Your task to perform on an android device: turn off priority inbox in the gmail app Image 0: 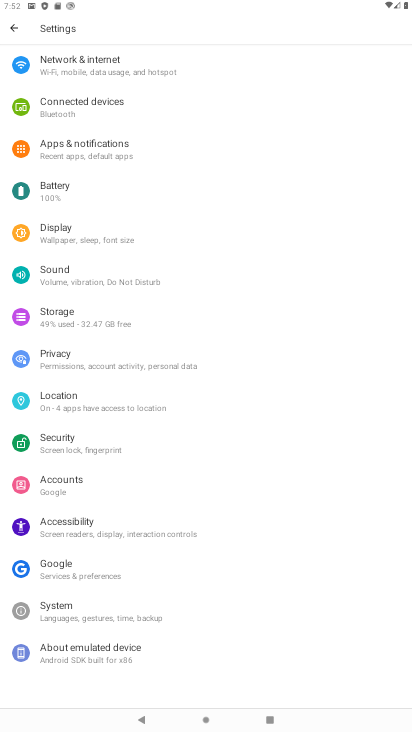
Step 0: press home button
Your task to perform on an android device: turn off priority inbox in the gmail app Image 1: 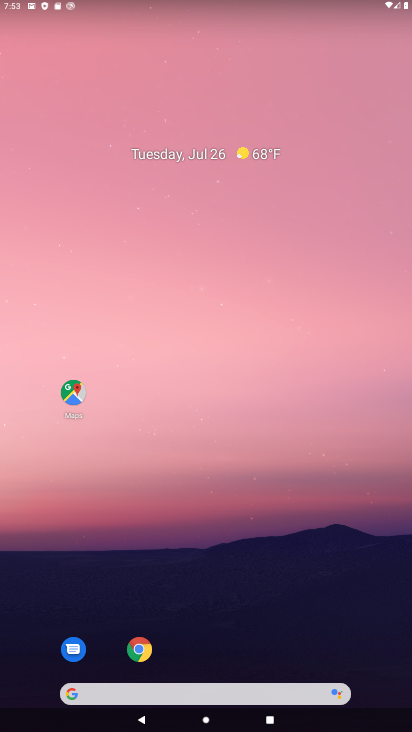
Step 1: drag from (169, 722) to (334, 27)
Your task to perform on an android device: turn off priority inbox in the gmail app Image 2: 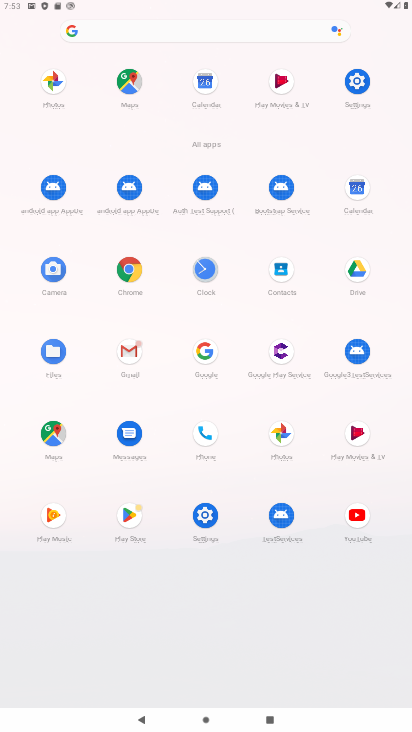
Step 2: click (144, 358)
Your task to perform on an android device: turn off priority inbox in the gmail app Image 3: 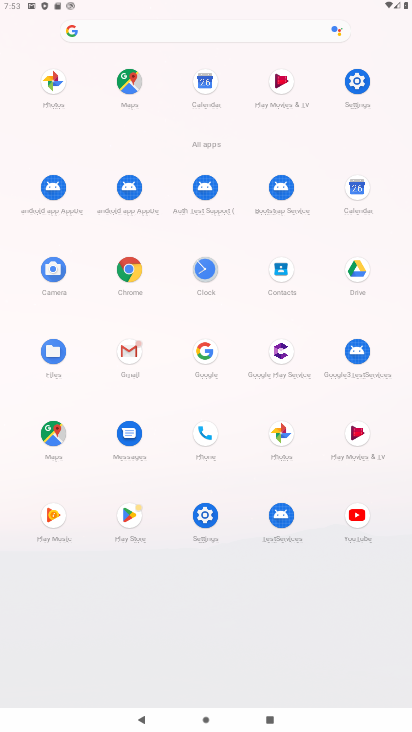
Step 3: click (144, 358)
Your task to perform on an android device: turn off priority inbox in the gmail app Image 4: 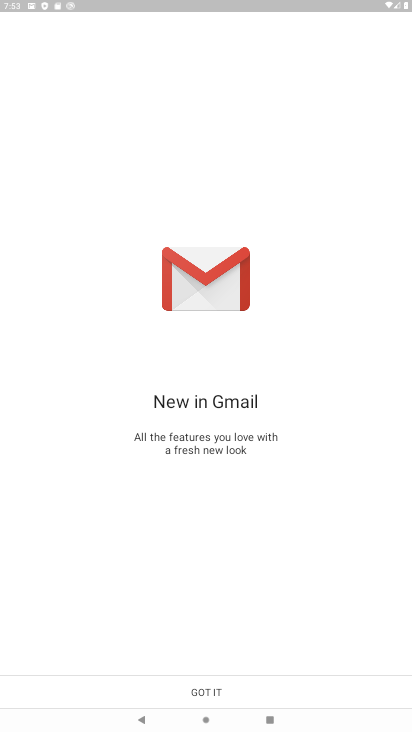
Step 4: click (166, 699)
Your task to perform on an android device: turn off priority inbox in the gmail app Image 5: 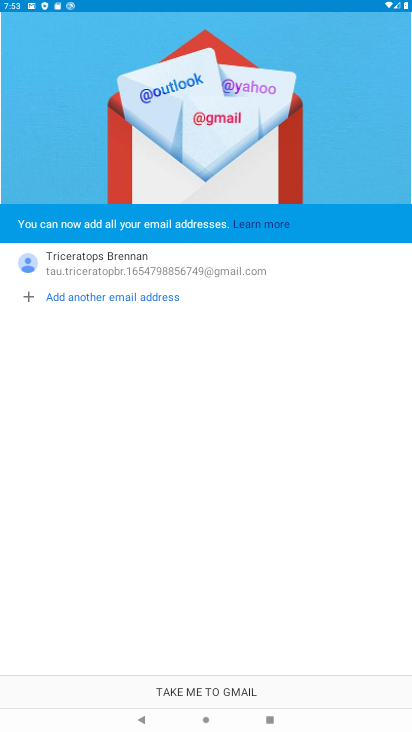
Step 5: click (244, 689)
Your task to perform on an android device: turn off priority inbox in the gmail app Image 6: 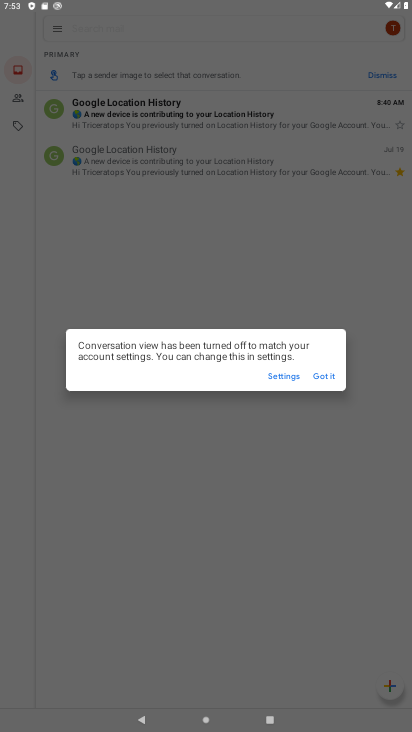
Step 6: click (337, 374)
Your task to perform on an android device: turn off priority inbox in the gmail app Image 7: 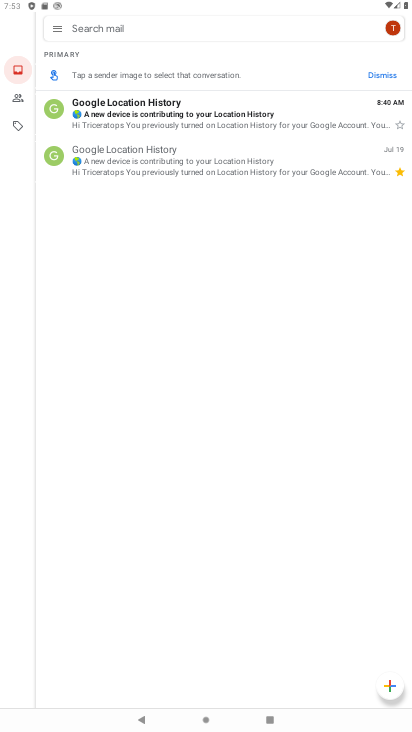
Step 7: click (56, 29)
Your task to perform on an android device: turn off priority inbox in the gmail app Image 8: 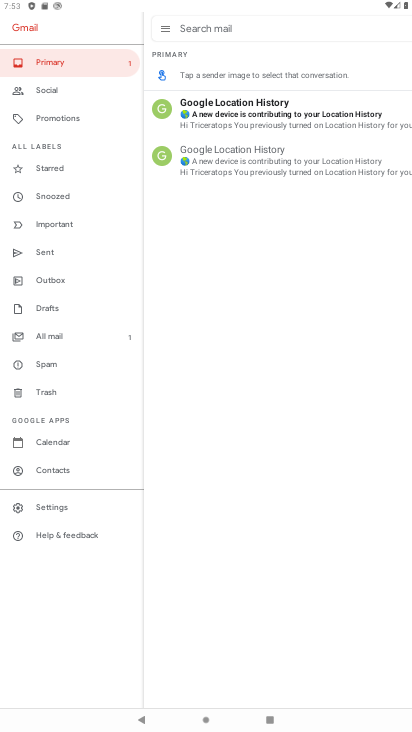
Step 8: click (56, 503)
Your task to perform on an android device: turn off priority inbox in the gmail app Image 9: 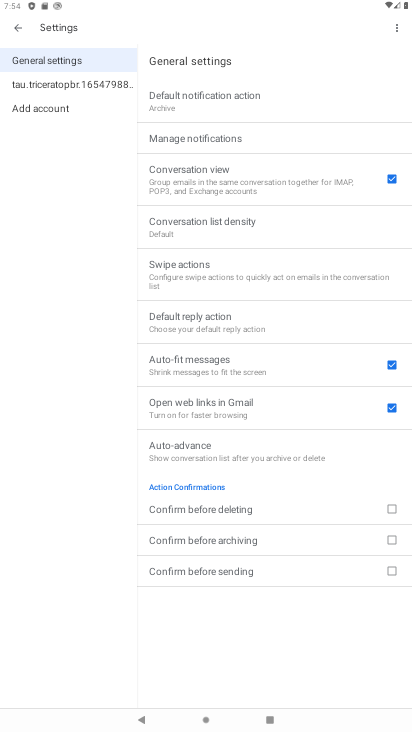
Step 9: click (51, 83)
Your task to perform on an android device: turn off priority inbox in the gmail app Image 10: 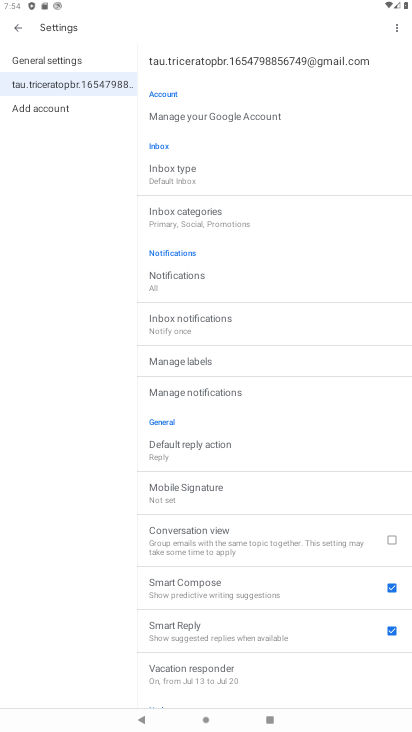
Step 10: click (183, 184)
Your task to perform on an android device: turn off priority inbox in the gmail app Image 11: 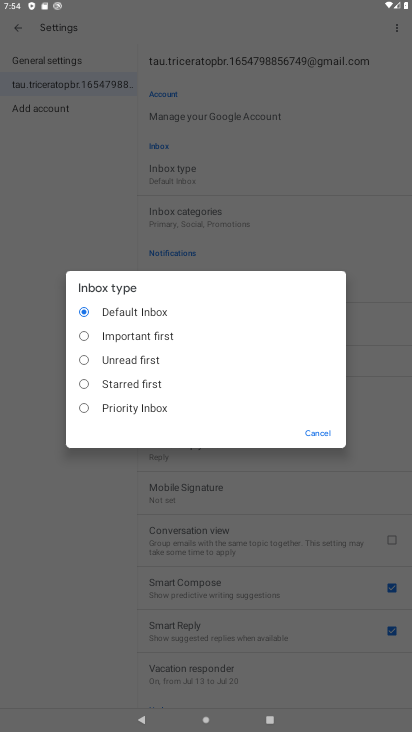
Step 11: click (122, 408)
Your task to perform on an android device: turn off priority inbox in the gmail app Image 12: 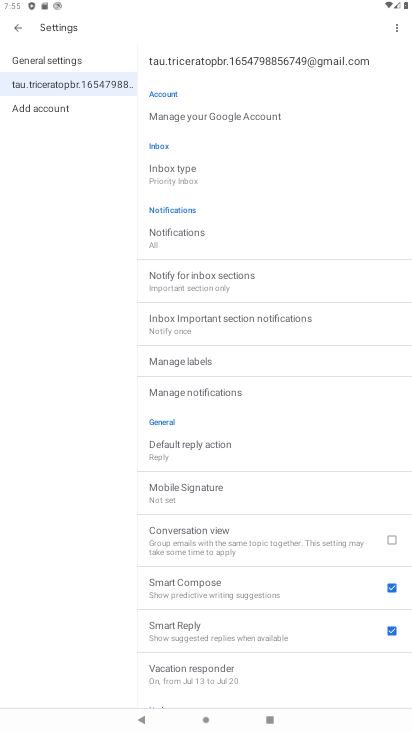
Step 12: task complete